Your task to perform on an android device: Clear all items from cart on amazon. Add amazon basics triple a to the cart on amazon Image 0: 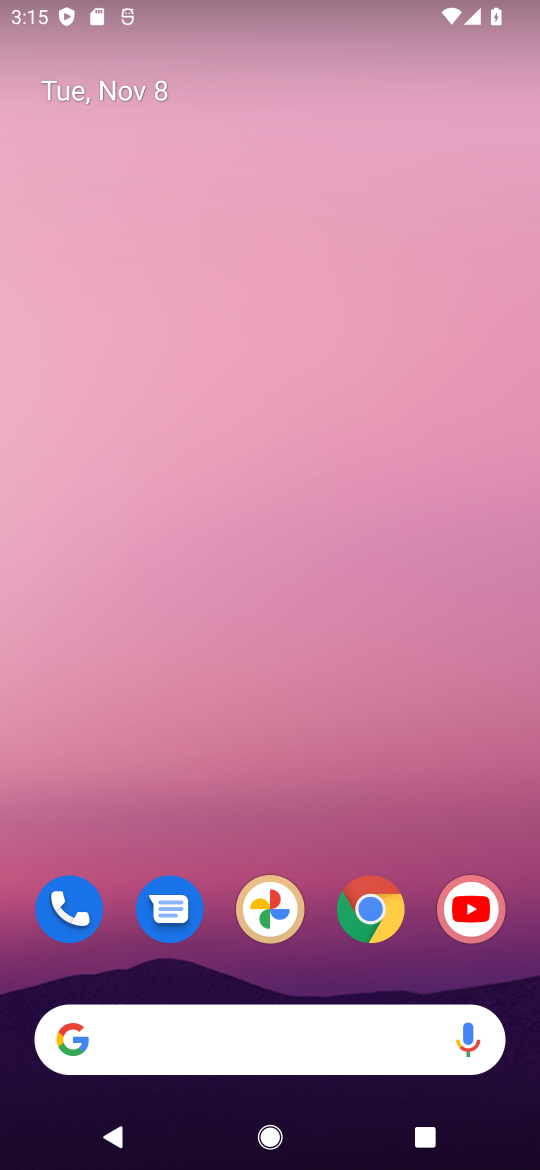
Step 0: click (374, 912)
Your task to perform on an android device: Clear all items from cart on amazon. Add amazon basics triple a to the cart on amazon Image 1: 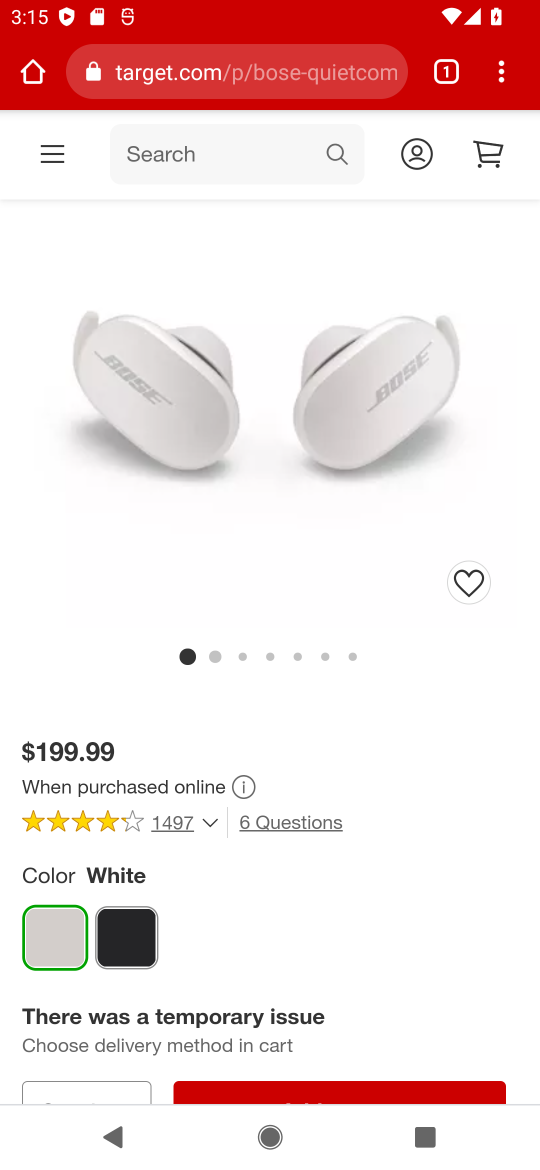
Step 1: click (237, 70)
Your task to perform on an android device: Clear all items from cart on amazon. Add amazon basics triple a to the cart on amazon Image 2: 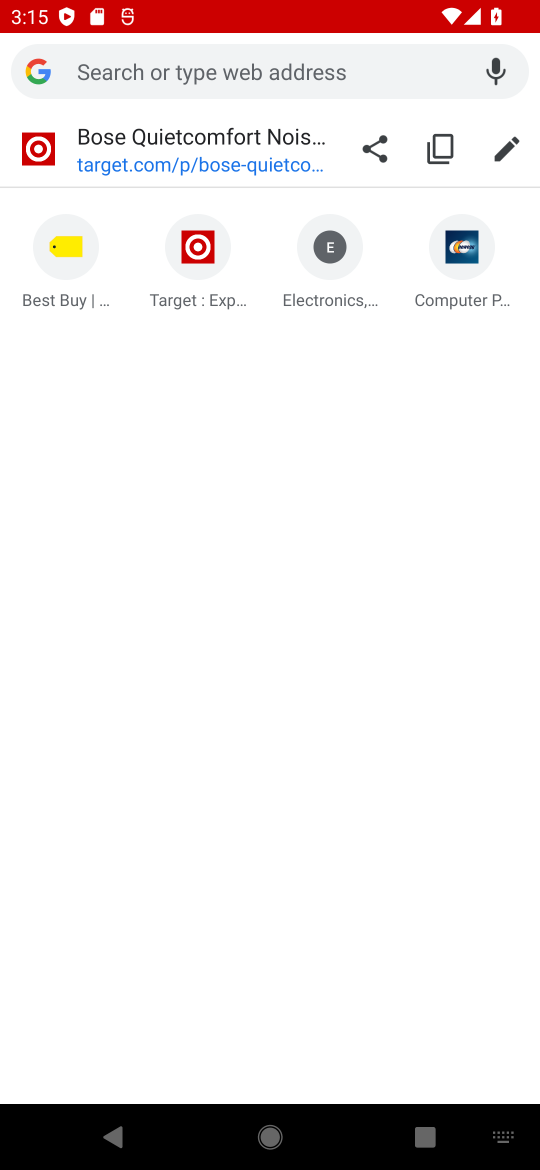
Step 2: type "amazon"
Your task to perform on an android device: Clear all items from cart on amazon. Add amazon basics triple a to the cart on amazon Image 3: 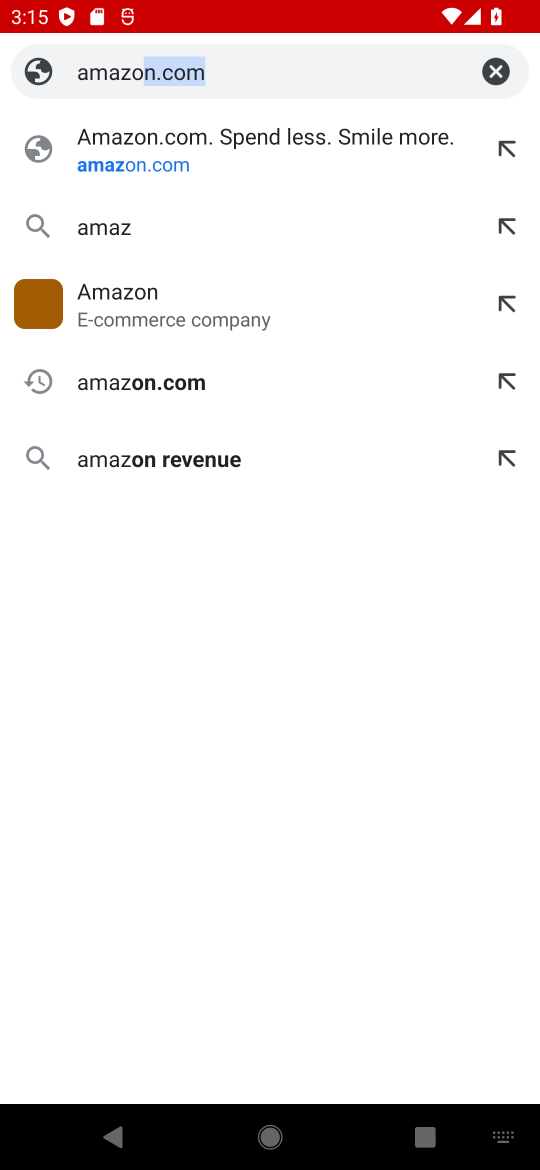
Step 3: press enter
Your task to perform on an android device: Clear all items from cart on amazon. Add amazon basics triple a to the cart on amazon Image 4: 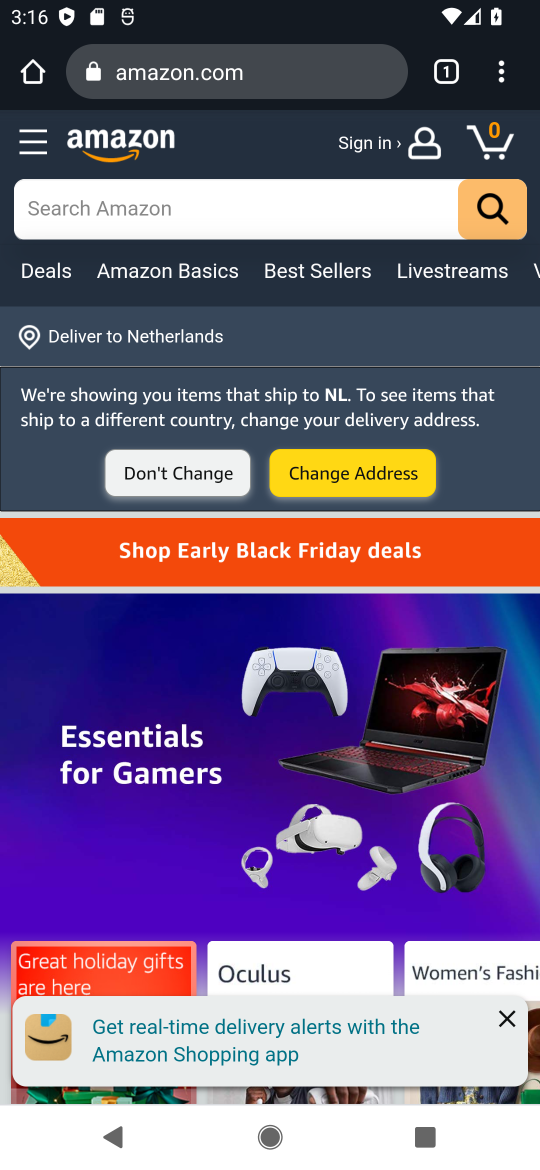
Step 4: click (120, 210)
Your task to perform on an android device: Clear all items from cart on amazon. Add amazon basics triple a to the cart on amazon Image 5: 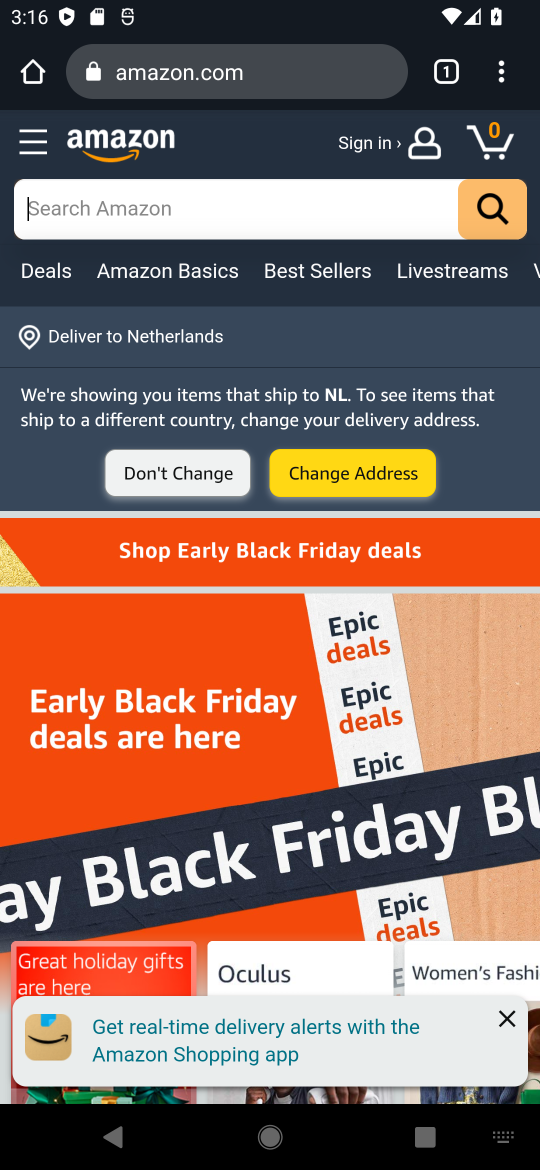
Step 5: type "basics triple a"
Your task to perform on an android device: Clear all items from cart on amazon. Add amazon basics triple a to the cart on amazon Image 6: 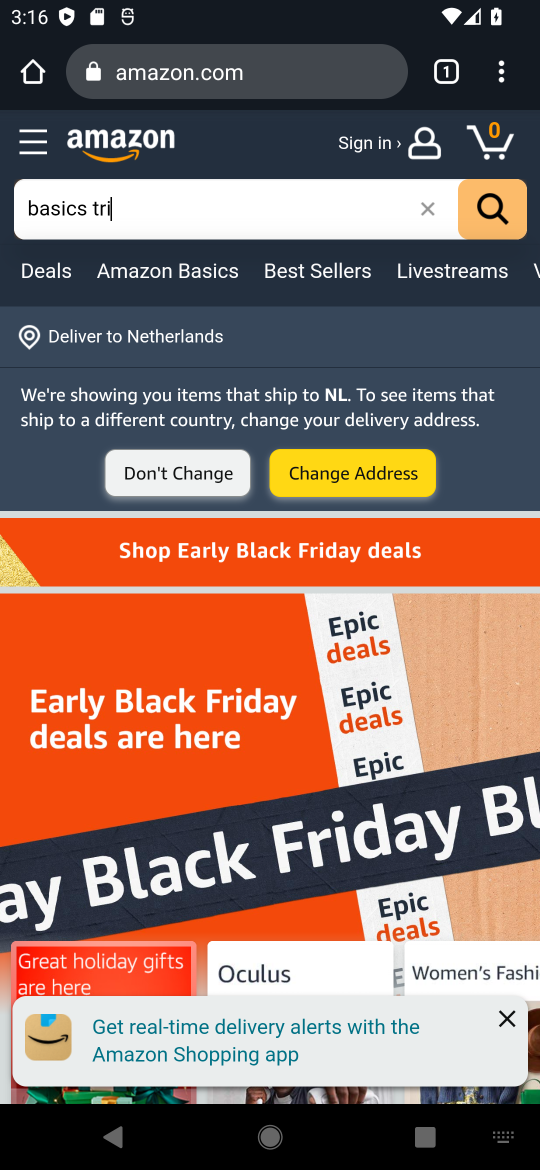
Step 6: press enter
Your task to perform on an android device: Clear all items from cart on amazon. Add amazon basics triple a to the cart on amazon Image 7: 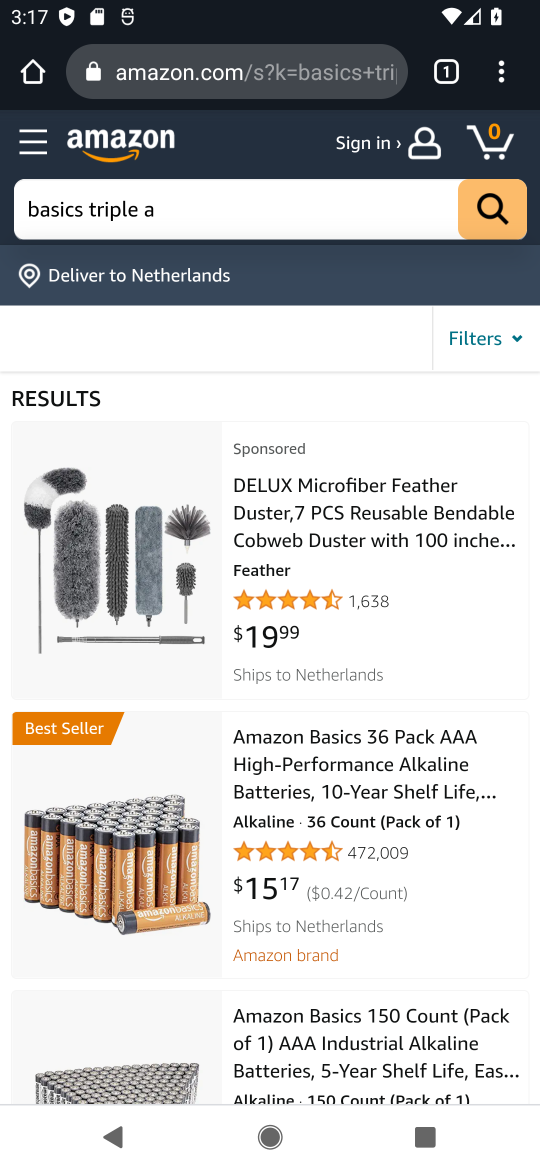
Step 7: click (284, 768)
Your task to perform on an android device: Clear all items from cart on amazon. Add amazon basics triple a to the cart on amazon Image 8: 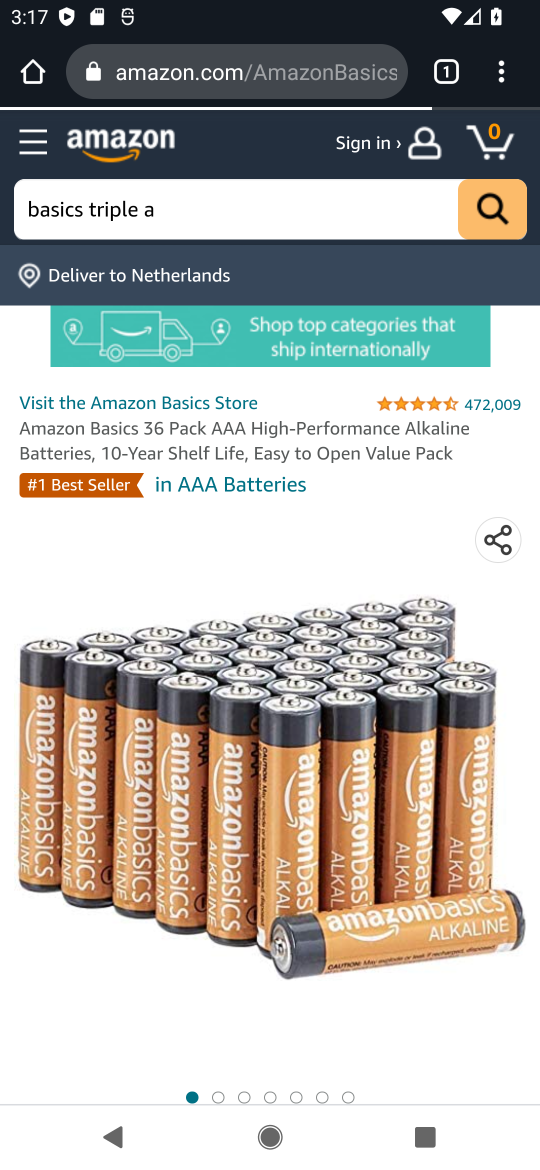
Step 8: task complete